Your task to perform on an android device: delete location history Image 0: 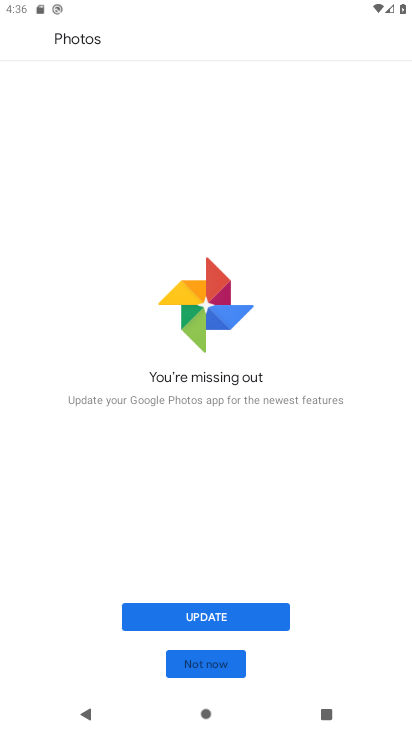
Step 0: press home button
Your task to perform on an android device: delete location history Image 1: 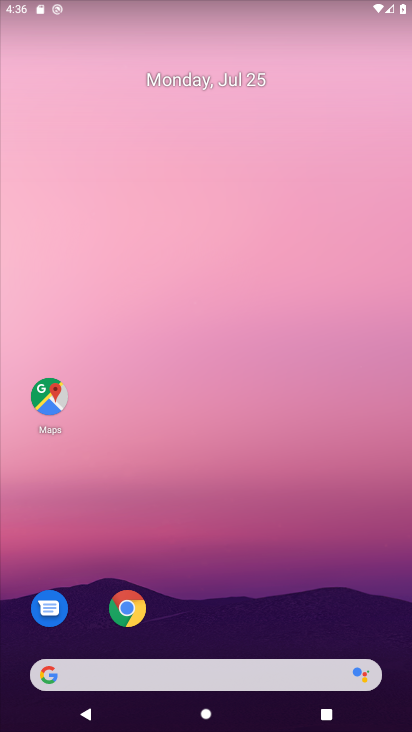
Step 1: click (53, 394)
Your task to perform on an android device: delete location history Image 2: 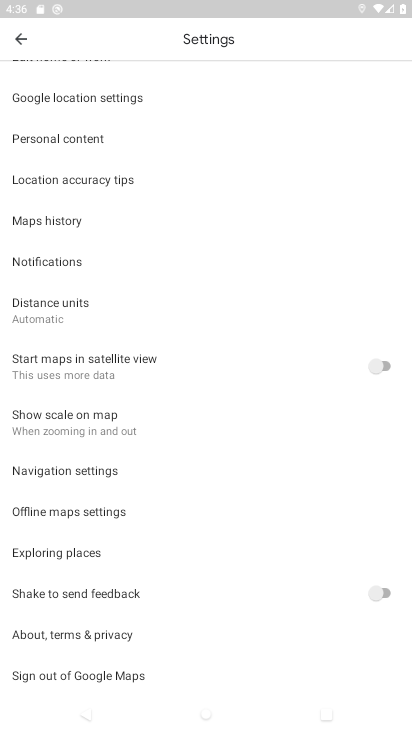
Step 2: drag from (109, 184) to (72, 569)
Your task to perform on an android device: delete location history Image 3: 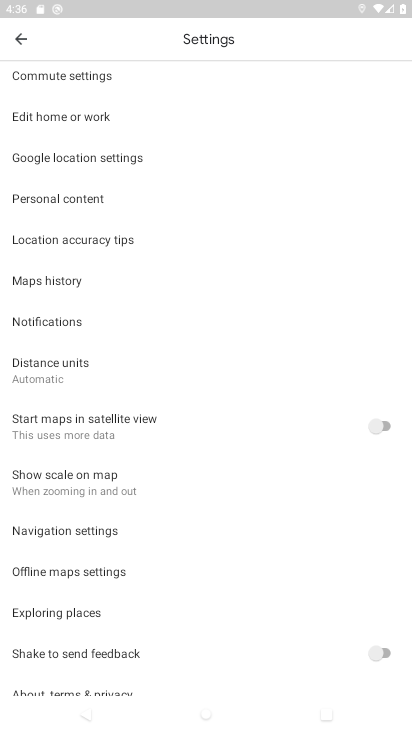
Step 3: click (24, 36)
Your task to perform on an android device: delete location history Image 4: 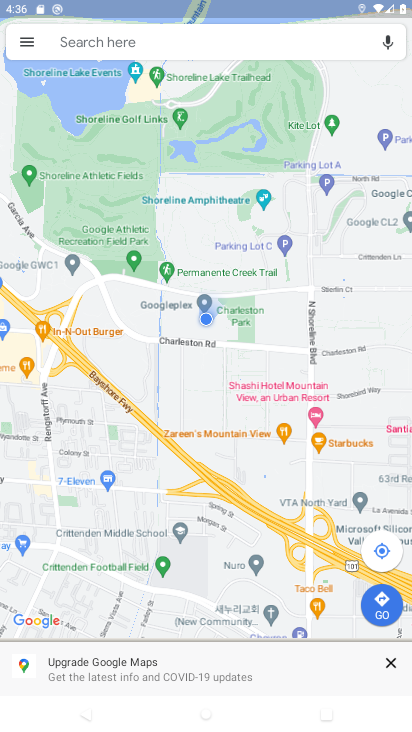
Step 4: click (24, 40)
Your task to perform on an android device: delete location history Image 5: 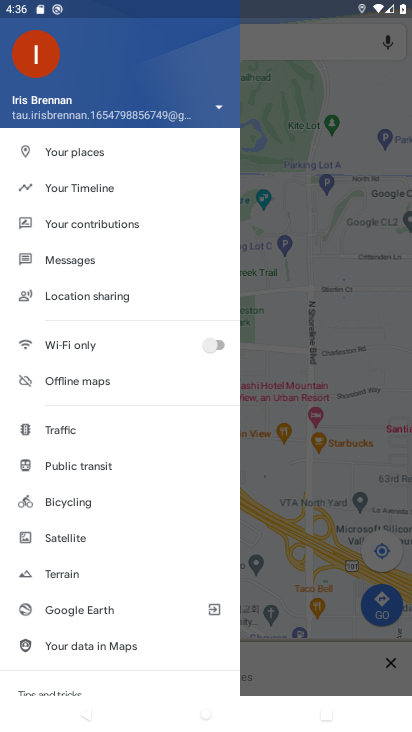
Step 5: click (71, 193)
Your task to perform on an android device: delete location history Image 6: 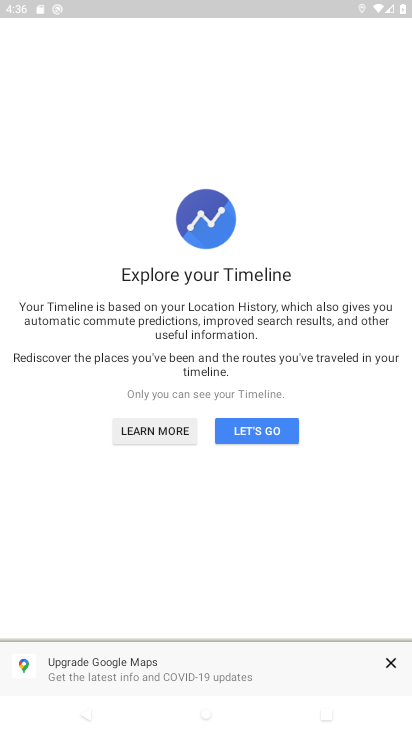
Step 6: click (396, 654)
Your task to perform on an android device: delete location history Image 7: 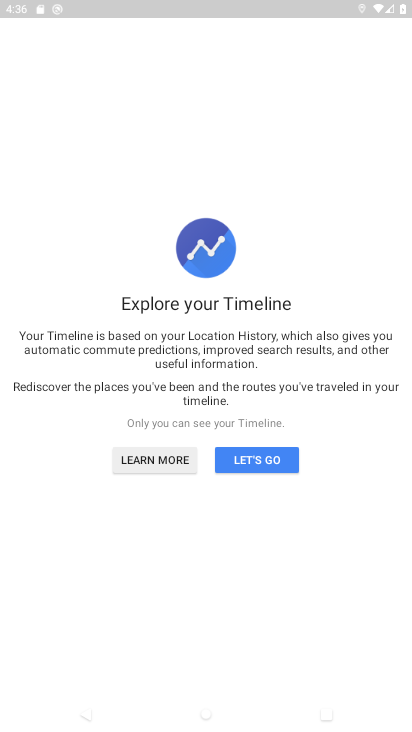
Step 7: click (244, 459)
Your task to perform on an android device: delete location history Image 8: 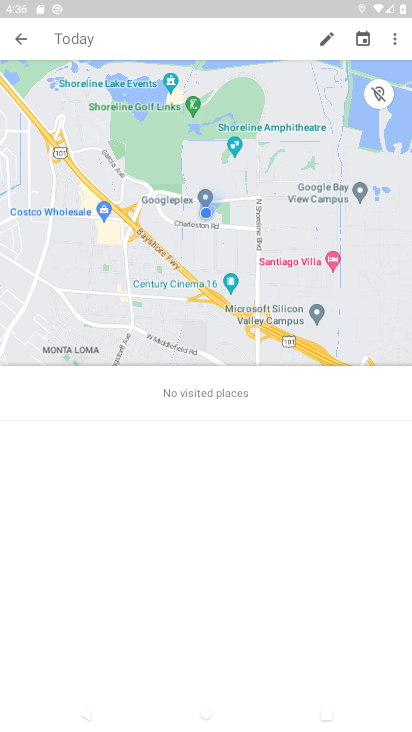
Step 8: click (391, 44)
Your task to perform on an android device: delete location history Image 9: 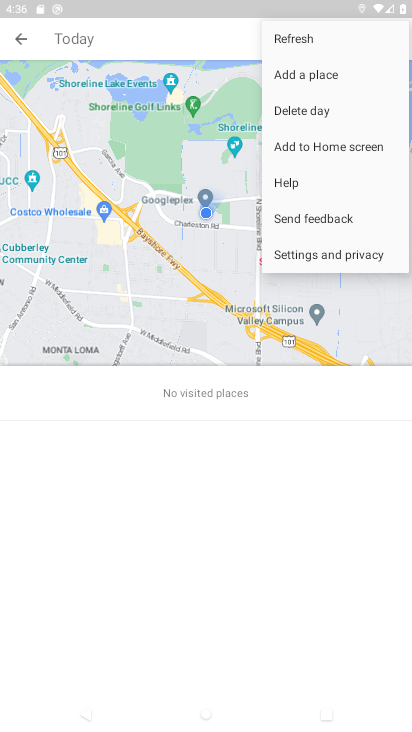
Step 9: click (315, 251)
Your task to perform on an android device: delete location history Image 10: 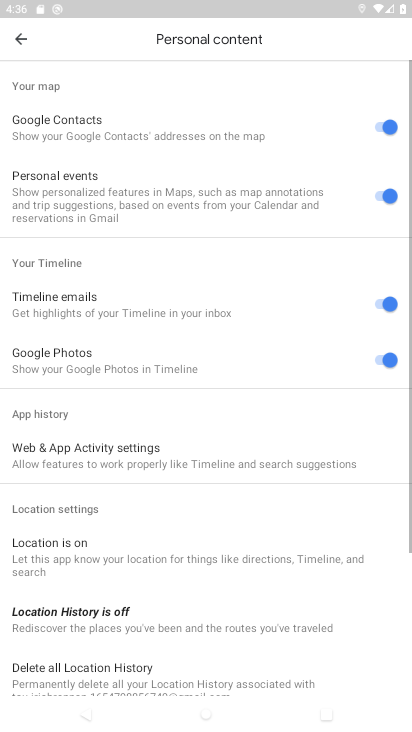
Step 10: drag from (104, 632) to (109, 532)
Your task to perform on an android device: delete location history Image 11: 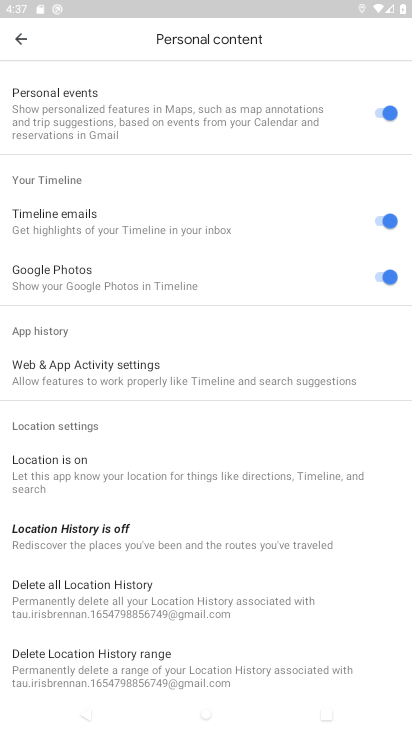
Step 11: click (86, 606)
Your task to perform on an android device: delete location history Image 12: 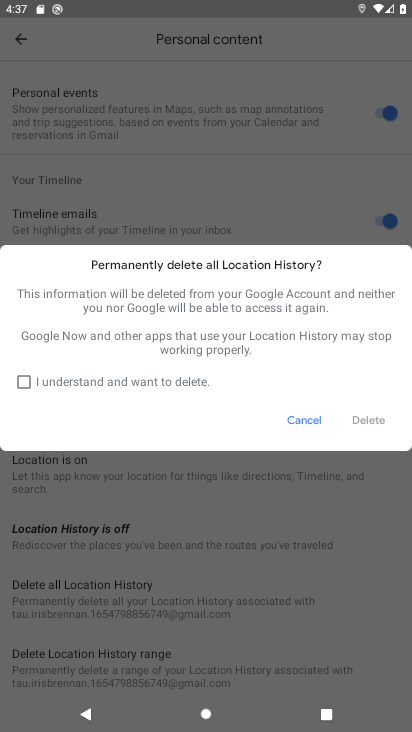
Step 12: click (21, 384)
Your task to perform on an android device: delete location history Image 13: 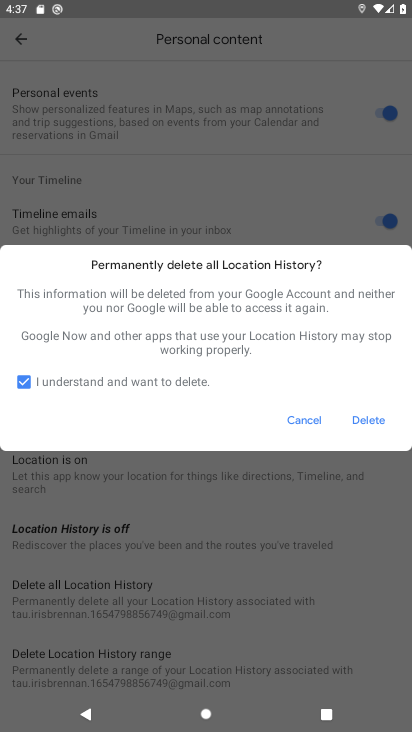
Step 13: click (372, 425)
Your task to perform on an android device: delete location history Image 14: 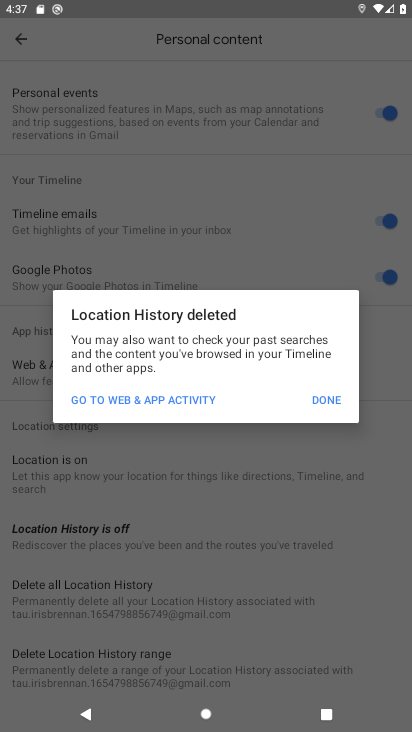
Step 14: click (324, 398)
Your task to perform on an android device: delete location history Image 15: 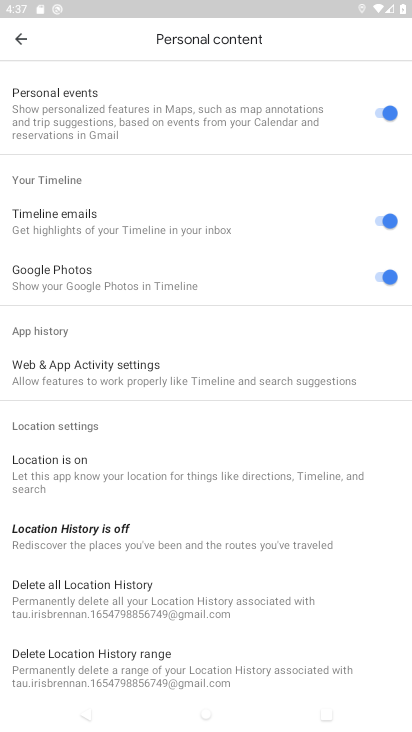
Step 15: task complete